Your task to perform on an android device: Open the stopwatch Image 0: 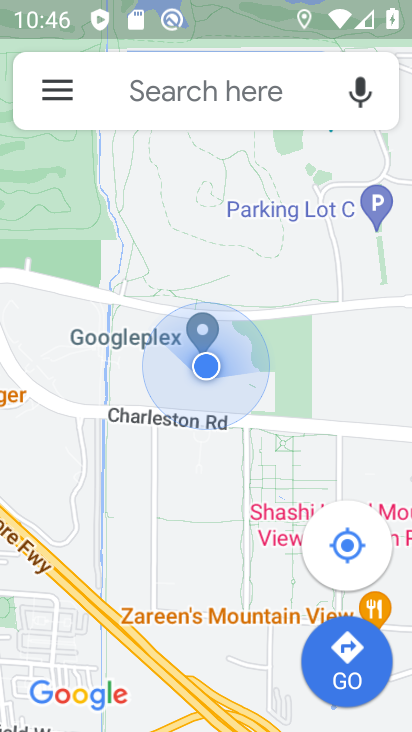
Step 0: press home button
Your task to perform on an android device: Open the stopwatch Image 1: 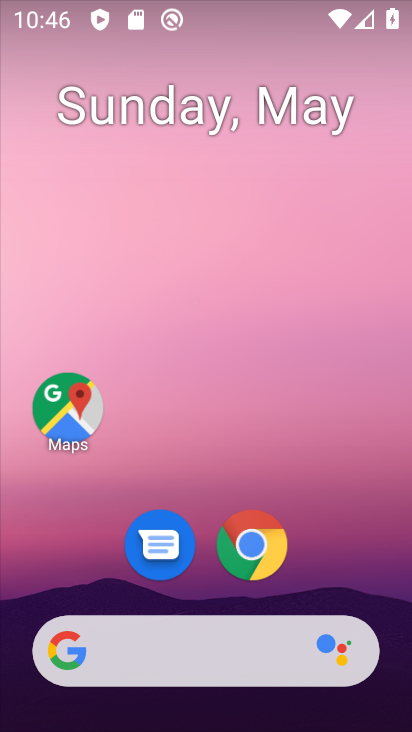
Step 1: drag from (388, 624) to (308, 106)
Your task to perform on an android device: Open the stopwatch Image 2: 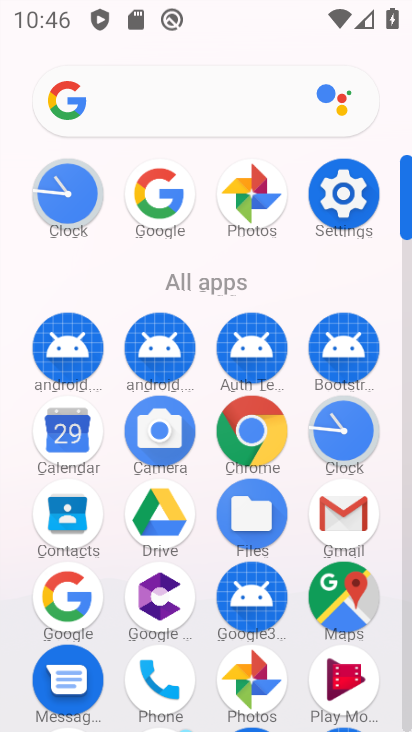
Step 2: click (349, 430)
Your task to perform on an android device: Open the stopwatch Image 3: 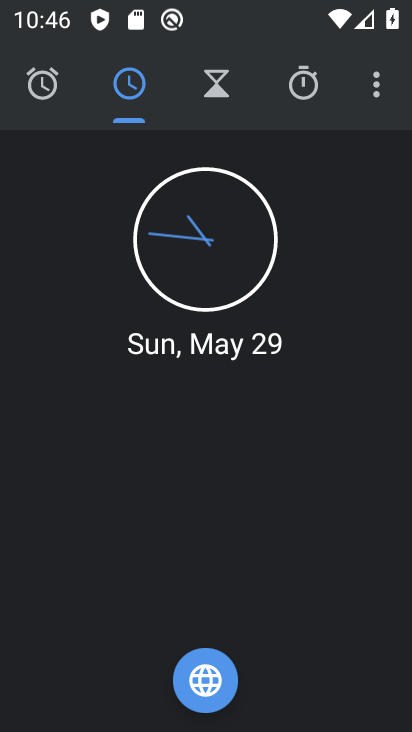
Step 3: click (311, 91)
Your task to perform on an android device: Open the stopwatch Image 4: 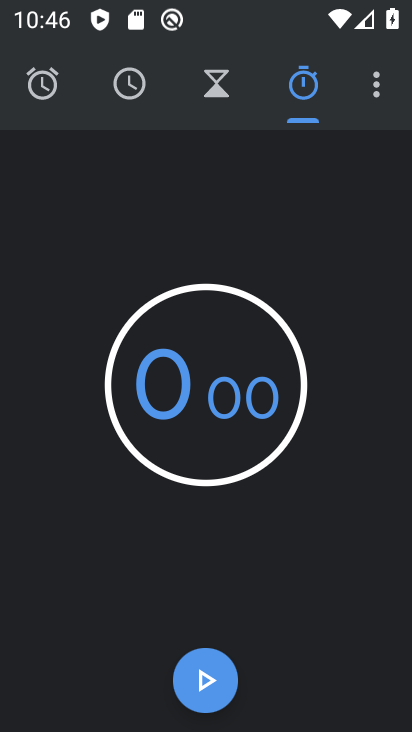
Step 4: task complete